Your task to perform on an android device: show emergency info Image 0: 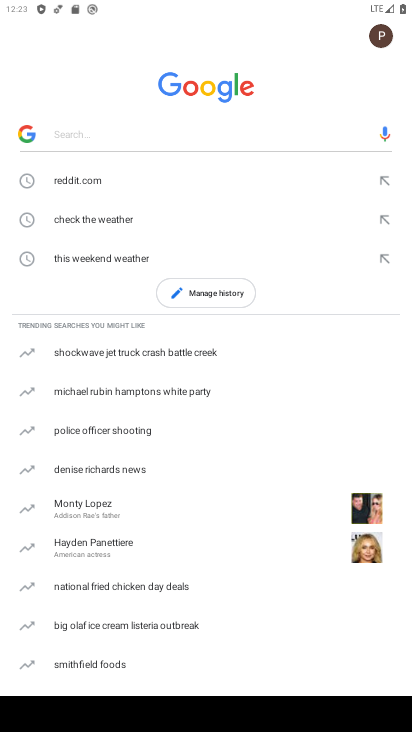
Step 0: press back button
Your task to perform on an android device: show emergency info Image 1: 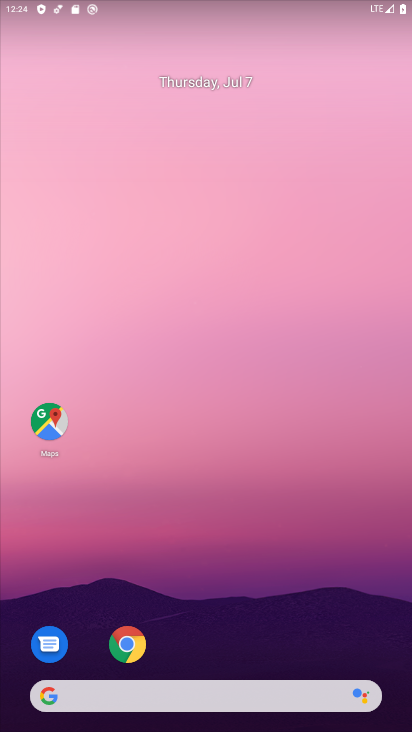
Step 1: drag from (407, 690) to (340, 139)
Your task to perform on an android device: show emergency info Image 2: 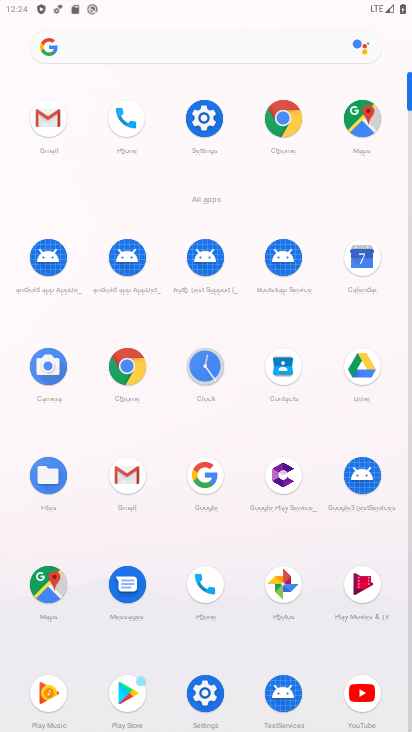
Step 2: click (205, 119)
Your task to perform on an android device: show emergency info Image 3: 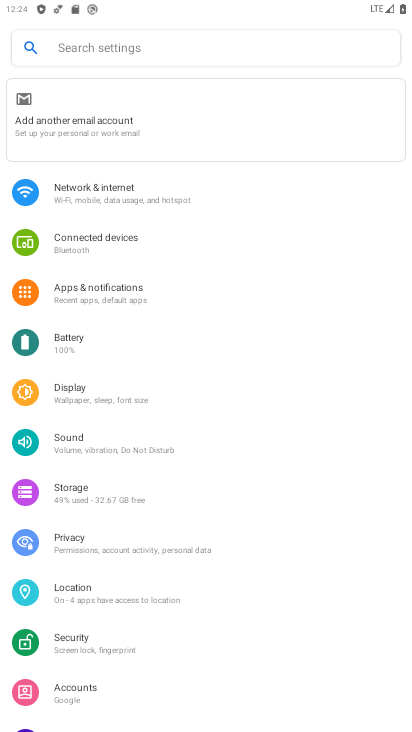
Step 3: drag from (227, 669) to (210, 245)
Your task to perform on an android device: show emergency info Image 4: 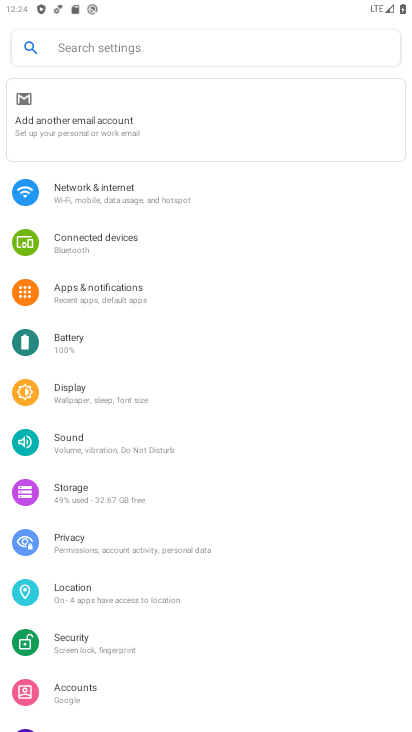
Step 4: drag from (273, 659) to (249, 287)
Your task to perform on an android device: show emergency info Image 5: 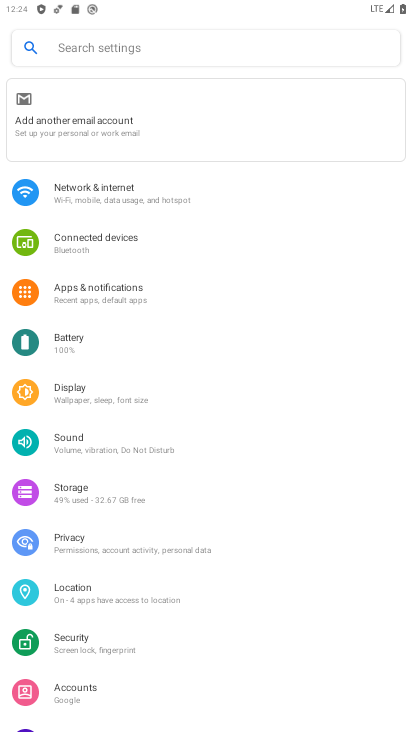
Step 5: drag from (291, 627) to (277, 200)
Your task to perform on an android device: show emergency info Image 6: 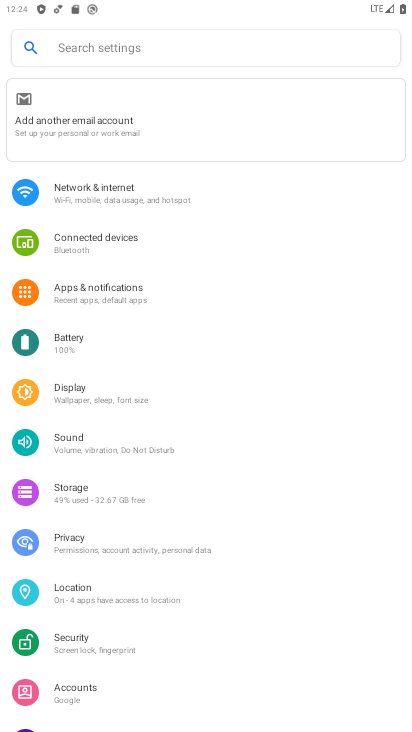
Step 6: drag from (317, 708) to (313, 267)
Your task to perform on an android device: show emergency info Image 7: 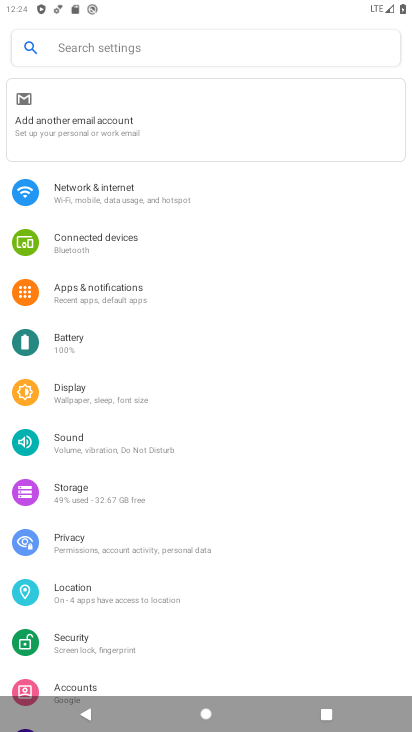
Step 7: drag from (294, 598) to (298, 189)
Your task to perform on an android device: show emergency info Image 8: 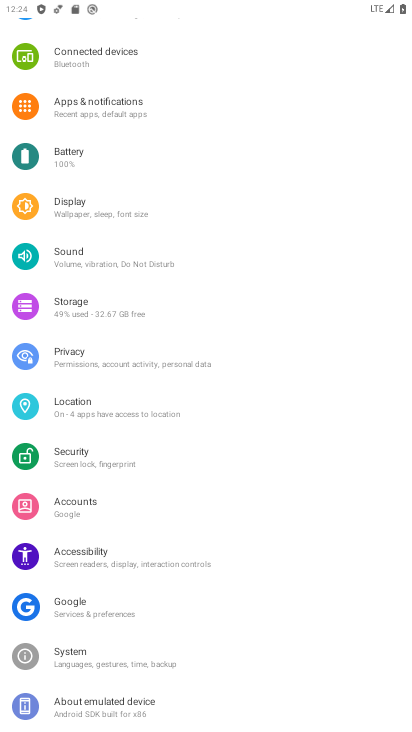
Step 8: click (106, 698)
Your task to perform on an android device: show emergency info Image 9: 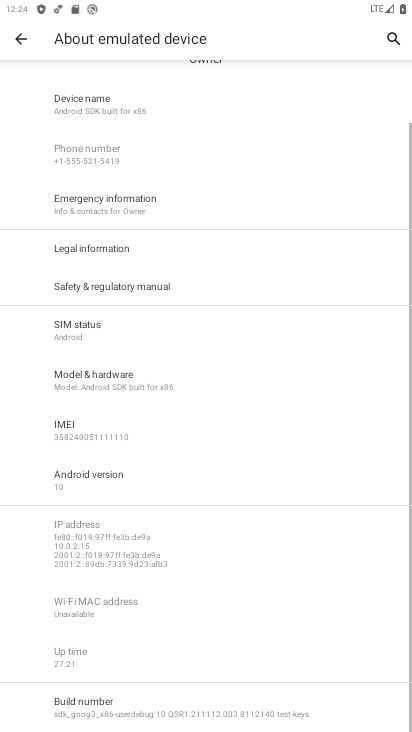
Step 9: click (107, 200)
Your task to perform on an android device: show emergency info Image 10: 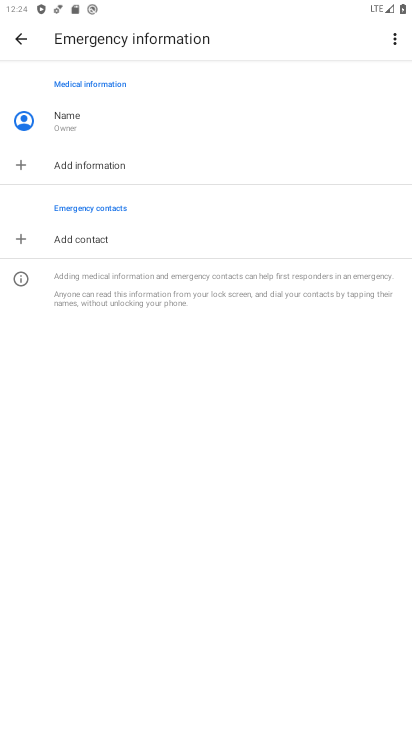
Step 10: task complete